Your task to perform on an android device: delete location history Image 0: 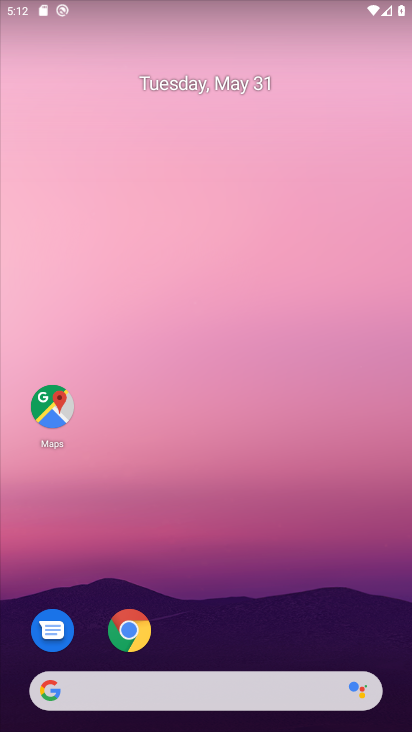
Step 0: drag from (252, 556) to (249, 149)
Your task to perform on an android device: delete location history Image 1: 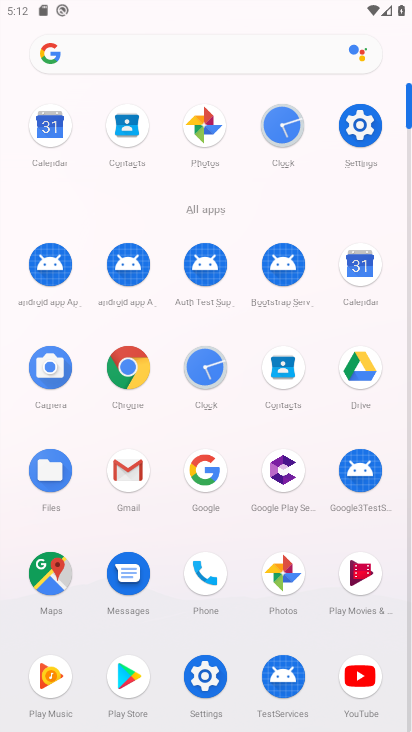
Step 1: click (373, 129)
Your task to perform on an android device: delete location history Image 2: 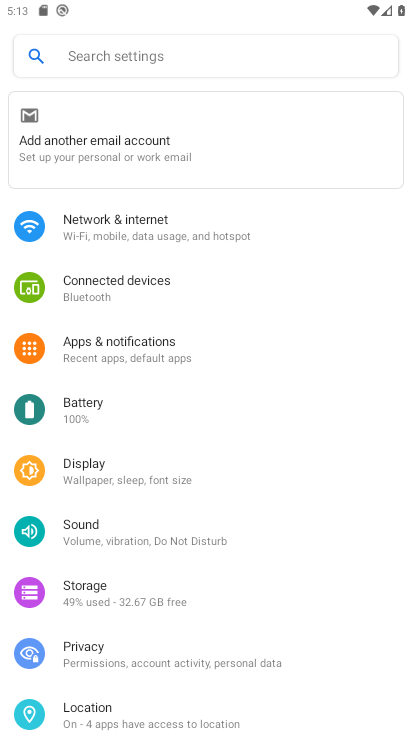
Step 2: click (118, 690)
Your task to perform on an android device: delete location history Image 3: 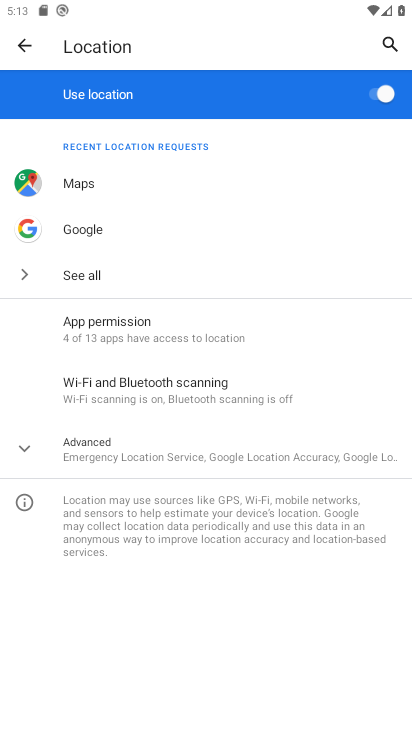
Step 3: click (135, 438)
Your task to perform on an android device: delete location history Image 4: 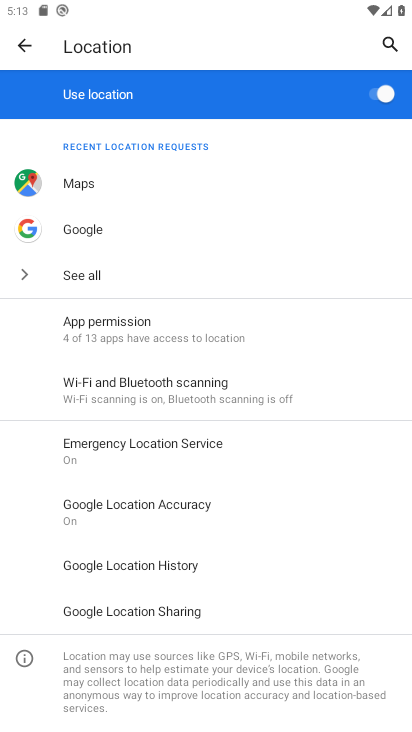
Step 4: click (136, 575)
Your task to perform on an android device: delete location history Image 5: 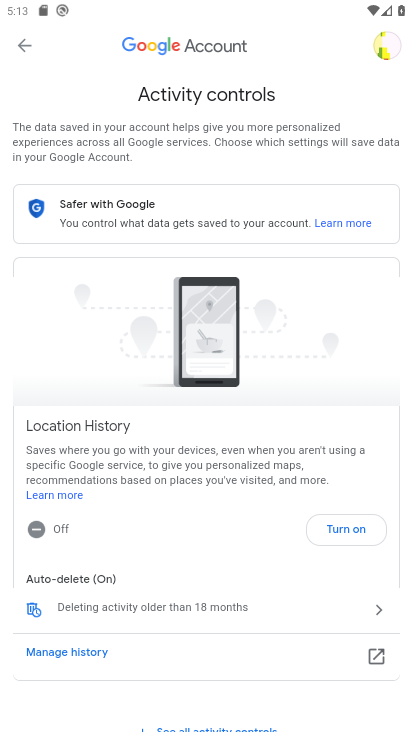
Step 5: click (79, 594)
Your task to perform on an android device: delete location history Image 6: 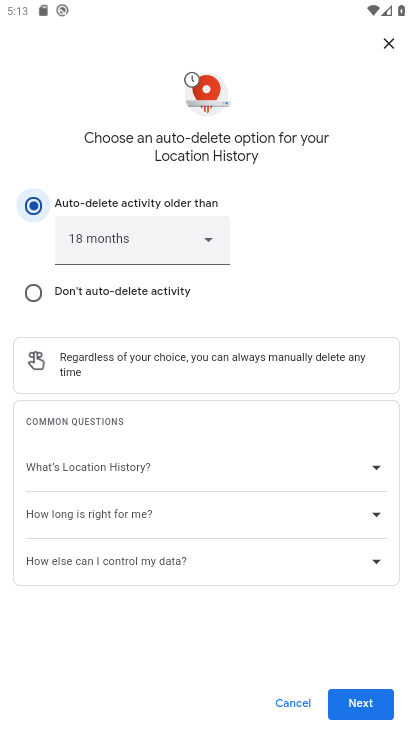
Step 6: click (378, 695)
Your task to perform on an android device: delete location history Image 7: 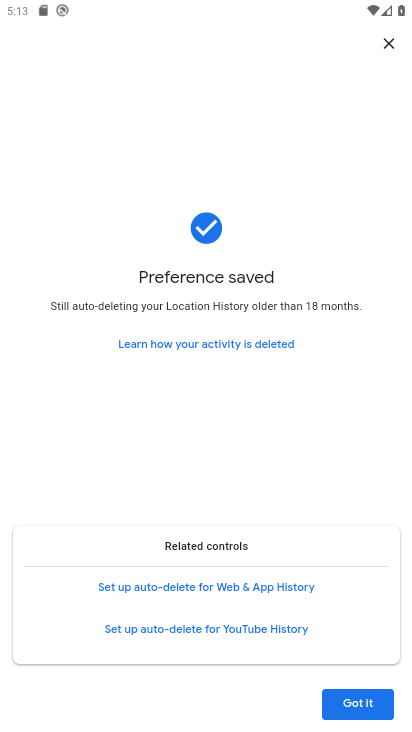
Step 7: click (367, 704)
Your task to perform on an android device: delete location history Image 8: 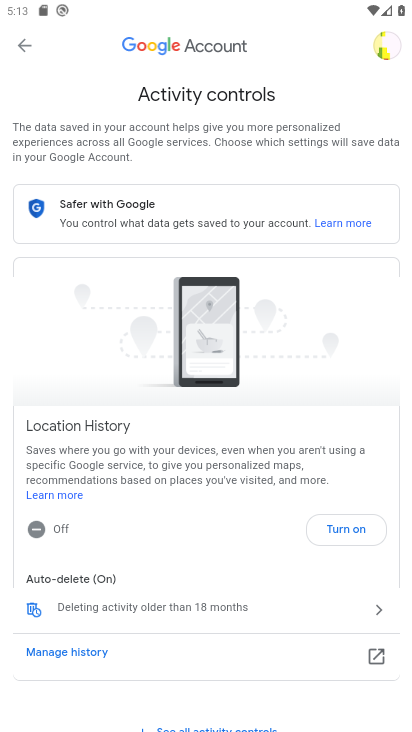
Step 8: task complete